Your task to perform on an android device: Go to display settings Image 0: 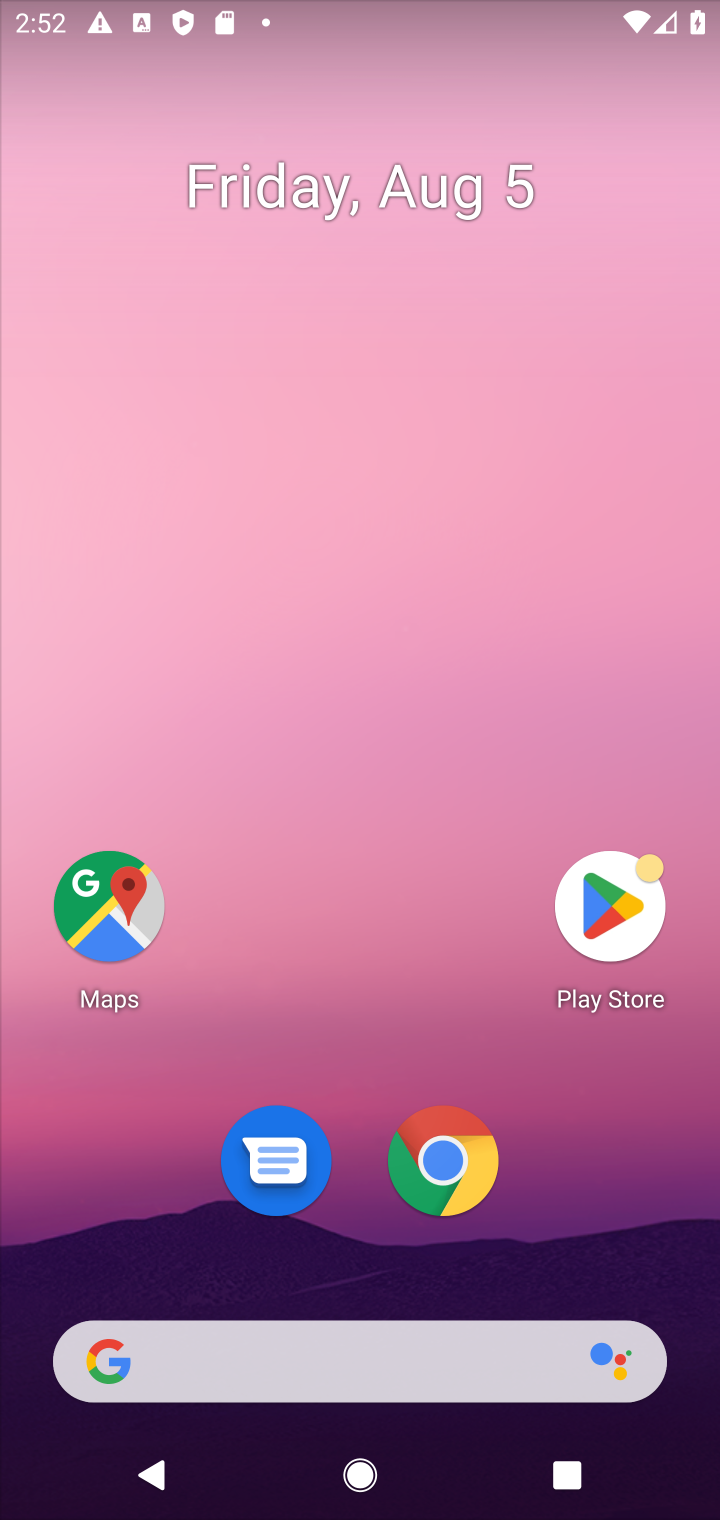
Step 0: drag from (326, 1016) to (303, 201)
Your task to perform on an android device: Go to display settings Image 1: 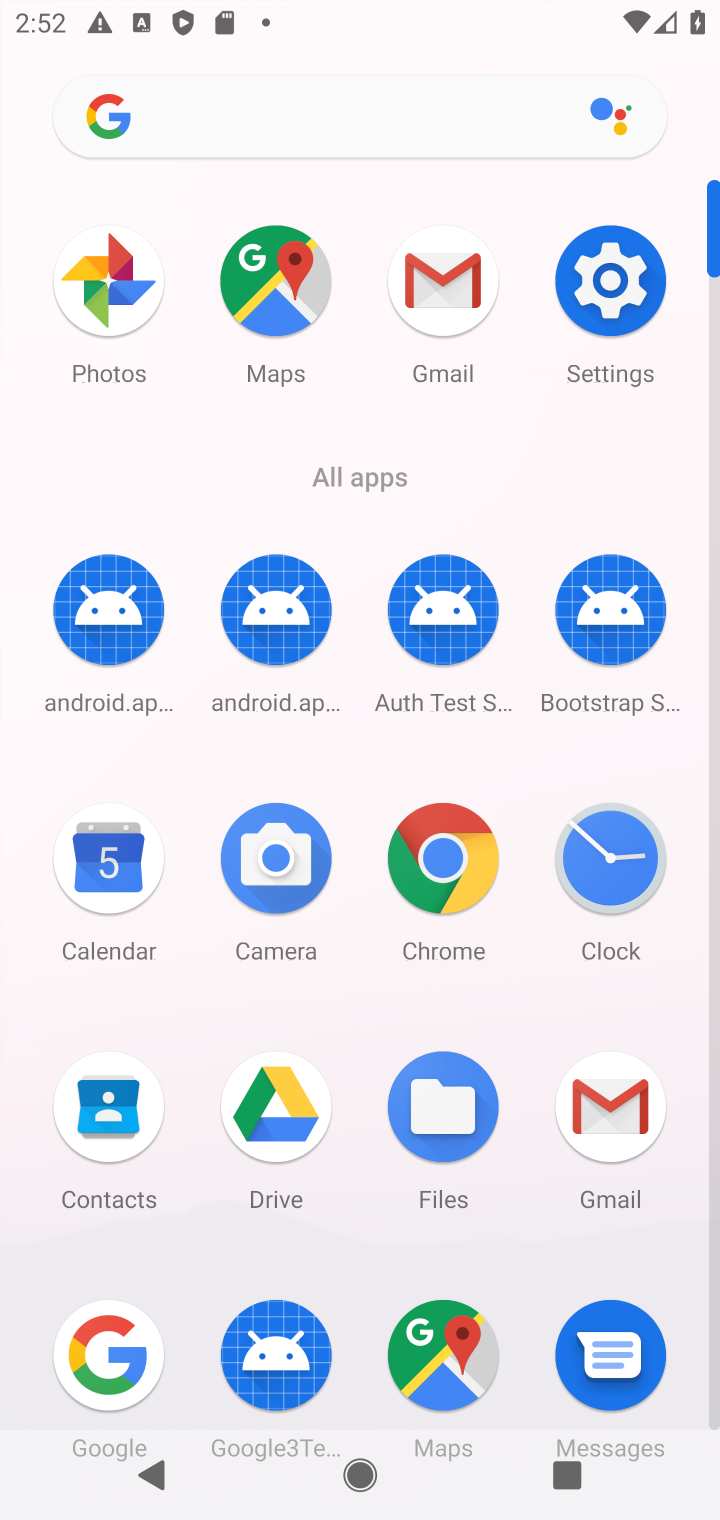
Step 1: click (595, 308)
Your task to perform on an android device: Go to display settings Image 2: 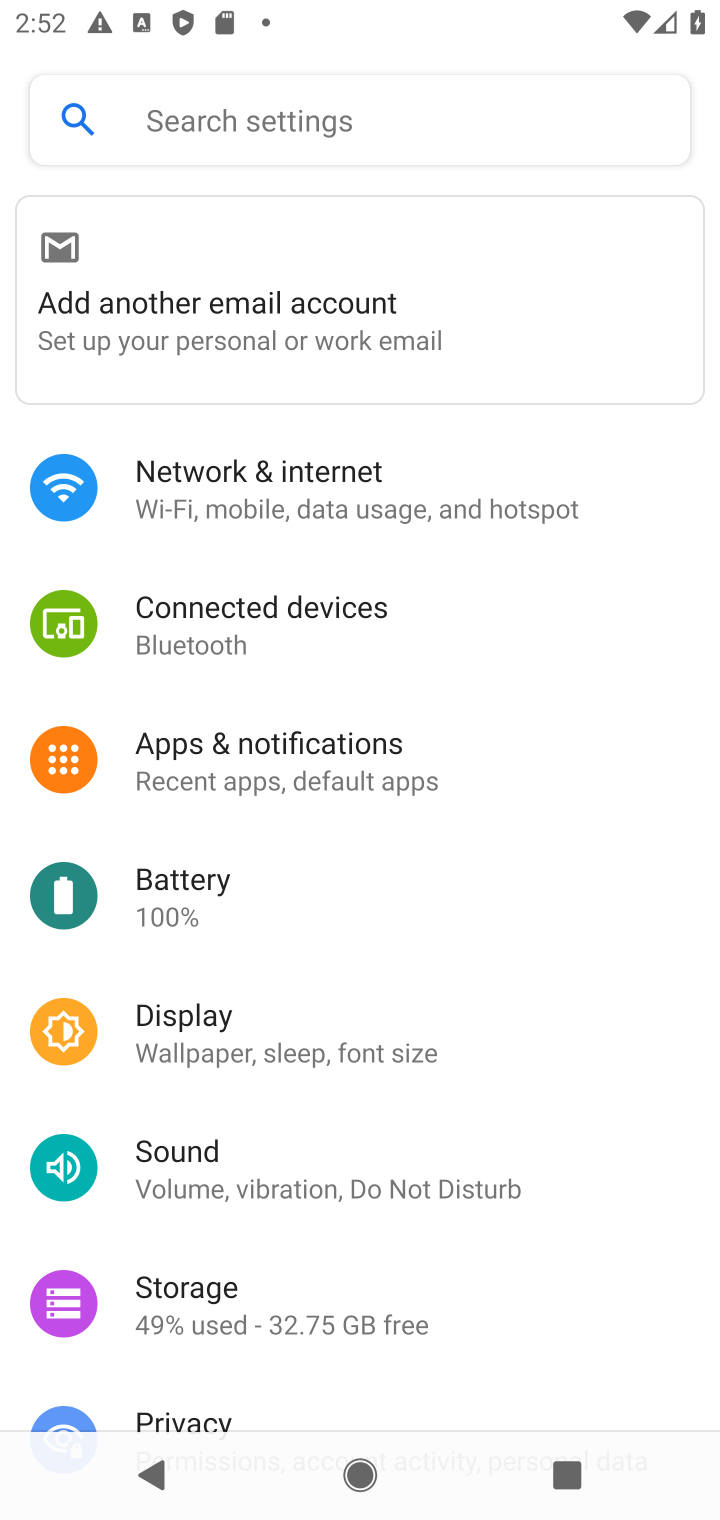
Step 2: click (240, 1019)
Your task to perform on an android device: Go to display settings Image 3: 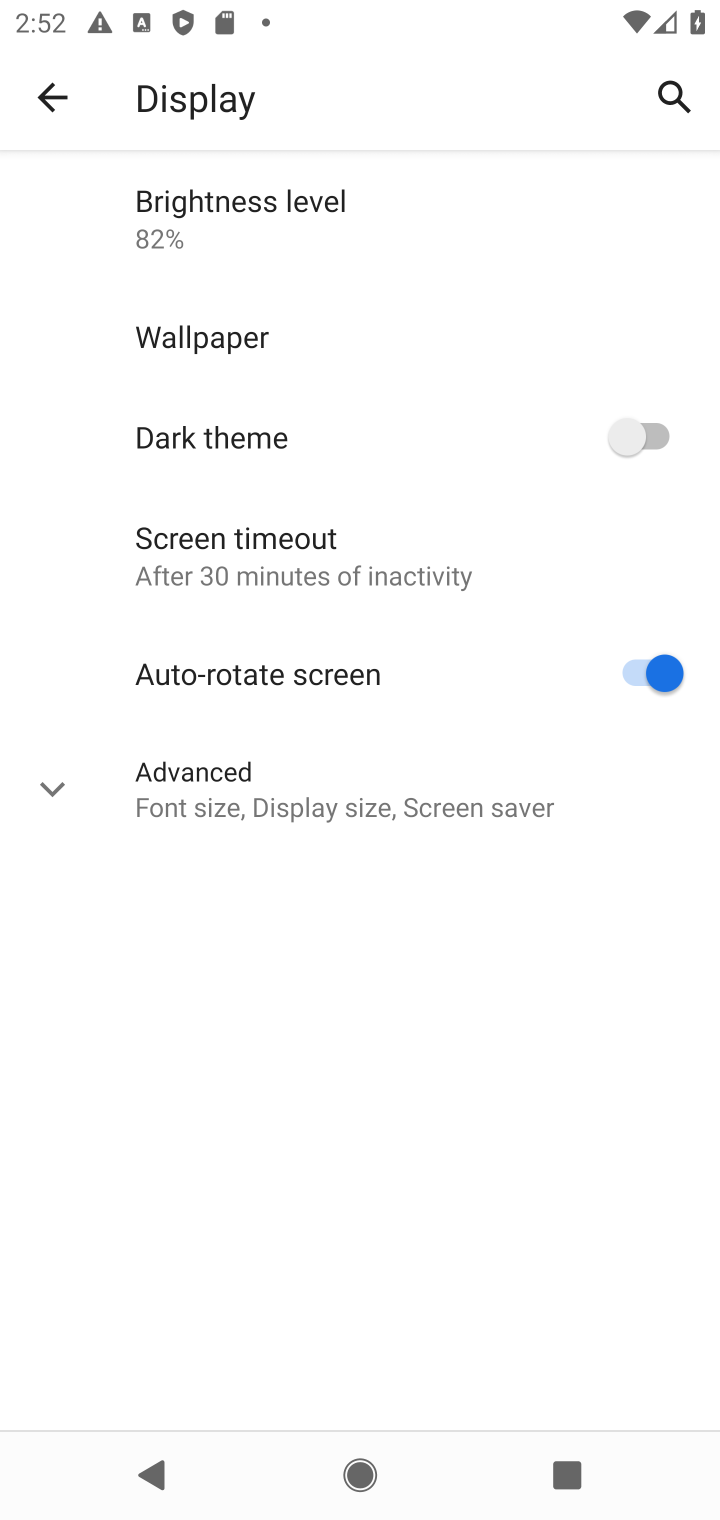
Step 3: task complete